Your task to perform on an android device: change notification settings in the gmail app Image 0: 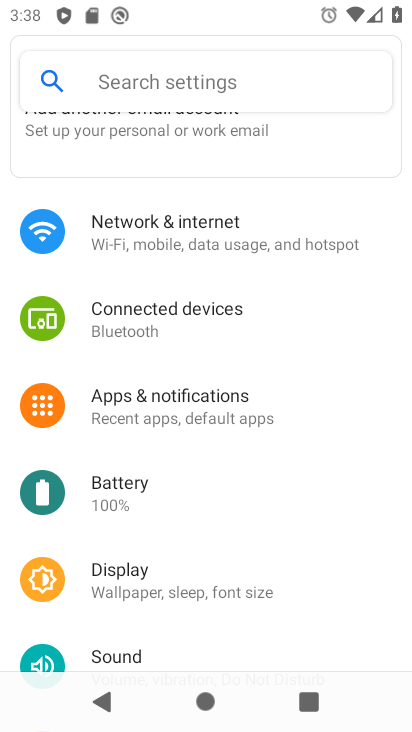
Step 0: press home button
Your task to perform on an android device: change notification settings in the gmail app Image 1: 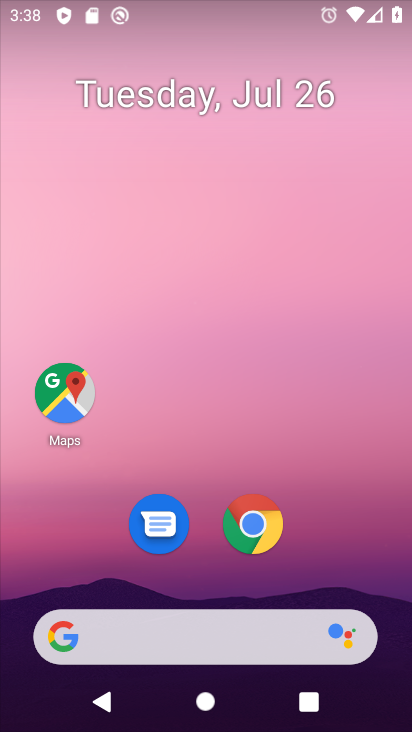
Step 1: drag from (331, 548) to (338, 54)
Your task to perform on an android device: change notification settings in the gmail app Image 2: 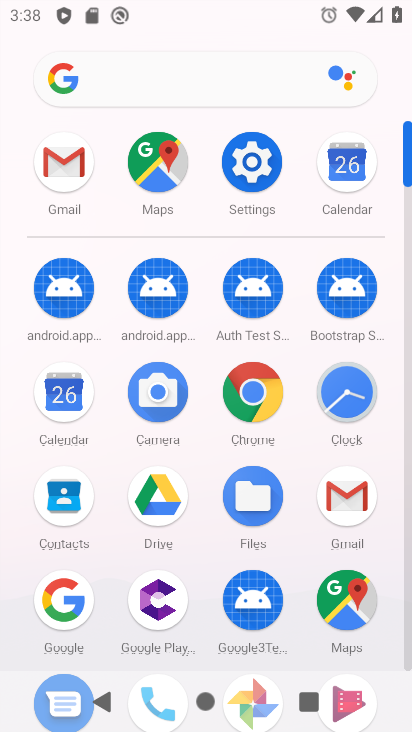
Step 2: click (80, 164)
Your task to perform on an android device: change notification settings in the gmail app Image 3: 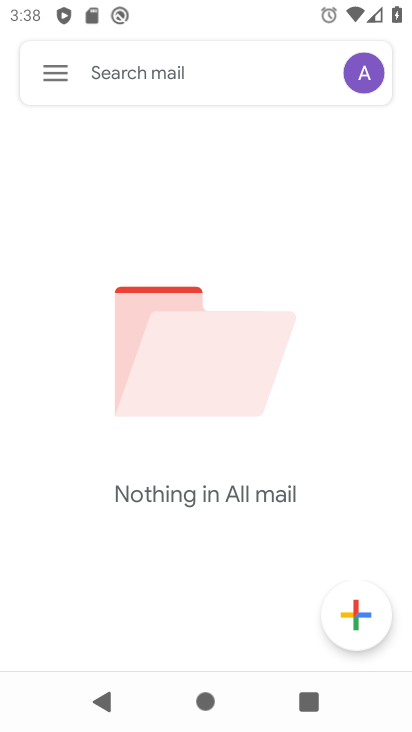
Step 3: click (55, 71)
Your task to perform on an android device: change notification settings in the gmail app Image 4: 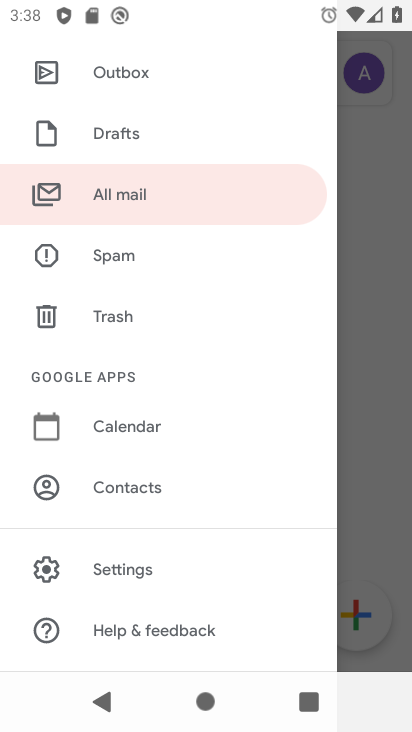
Step 4: click (137, 562)
Your task to perform on an android device: change notification settings in the gmail app Image 5: 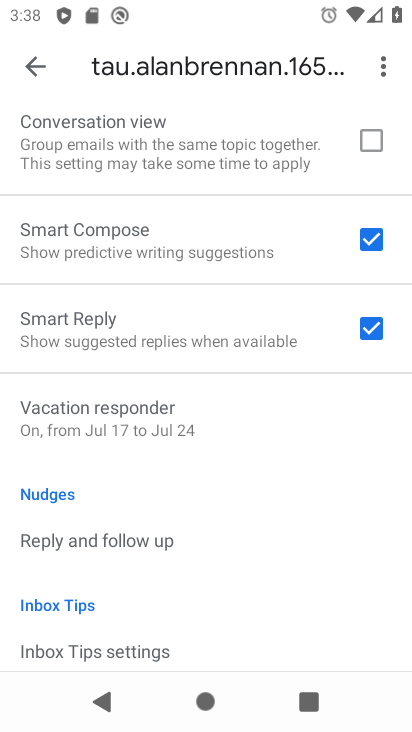
Step 5: drag from (205, 135) to (325, 617)
Your task to perform on an android device: change notification settings in the gmail app Image 6: 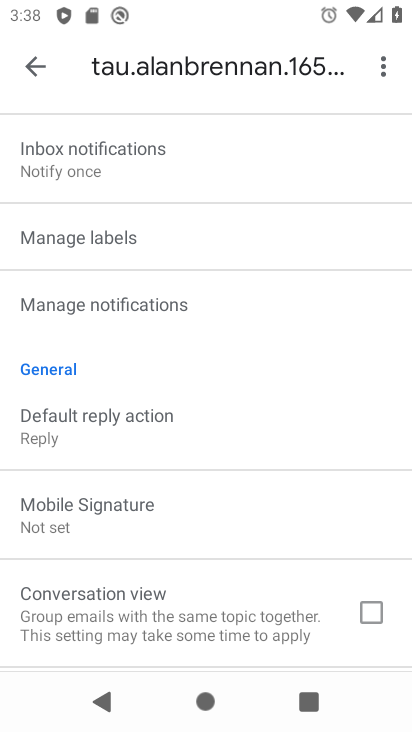
Step 6: click (186, 291)
Your task to perform on an android device: change notification settings in the gmail app Image 7: 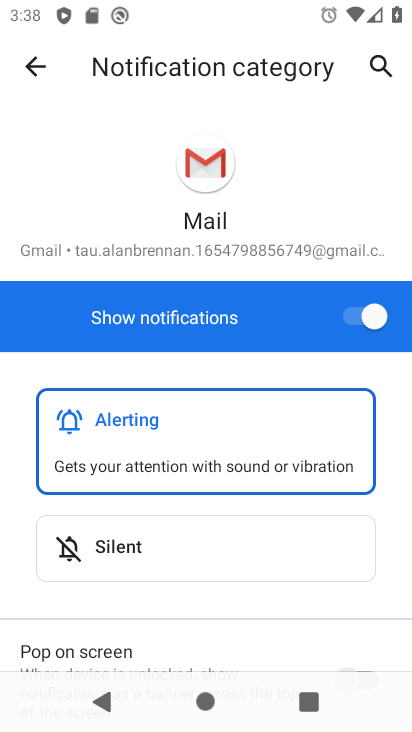
Step 7: click (366, 318)
Your task to perform on an android device: change notification settings in the gmail app Image 8: 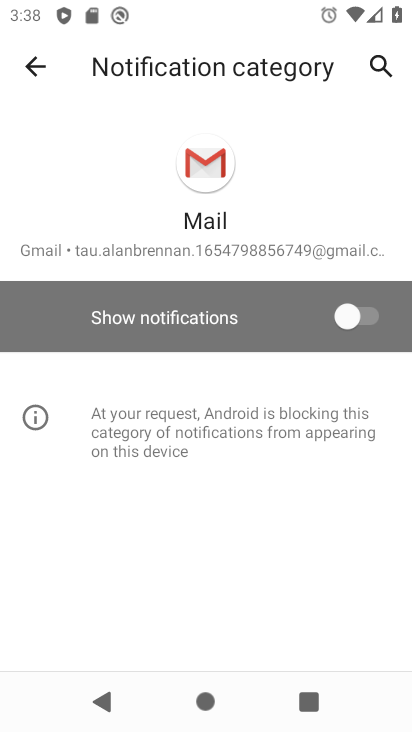
Step 8: task complete